Your task to perform on an android device: toggle wifi Image 0: 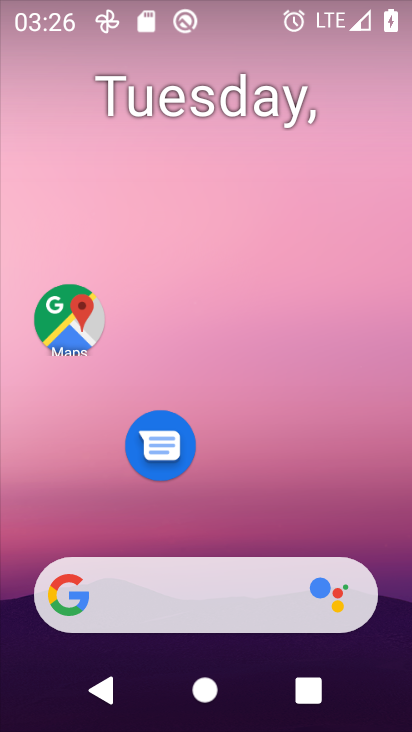
Step 0: drag from (264, 478) to (194, 24)
Your task to perform on an android device: toggle wifi Image 1: 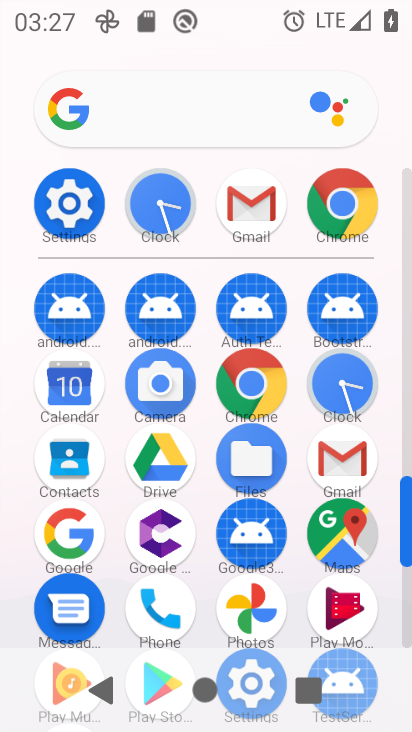
Step 1: click (61, 184)
Your task to perform on an android device: toggle wifi Image 2: 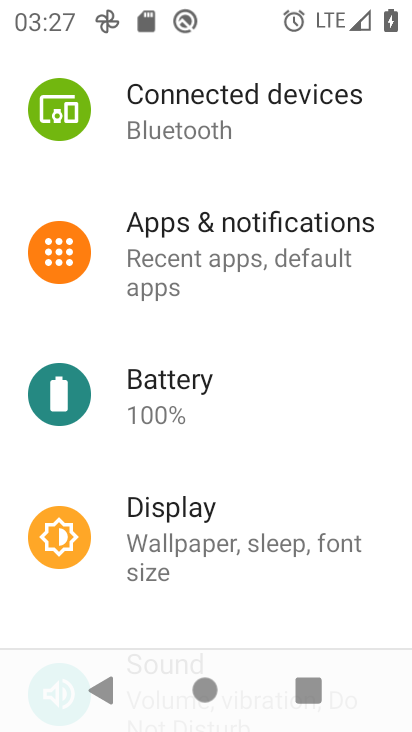
Step 2: drag from (223, 159) to (315, 696)
Your task to perform on an android device: toggle wifi Image 3: 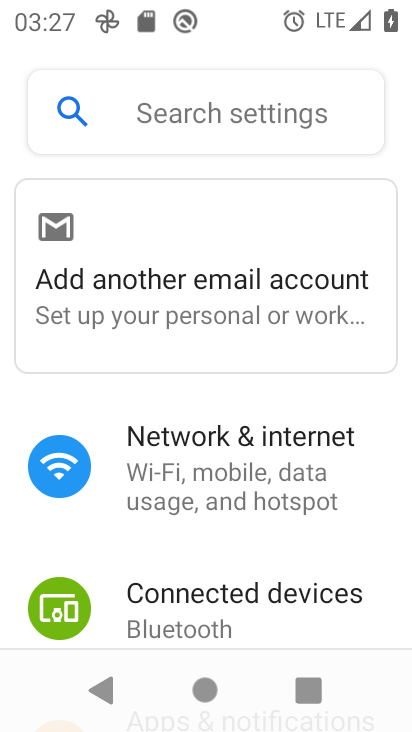
Step 3: click (193, 471)
Your task to perform on an android device: toggle wifi Image 4: 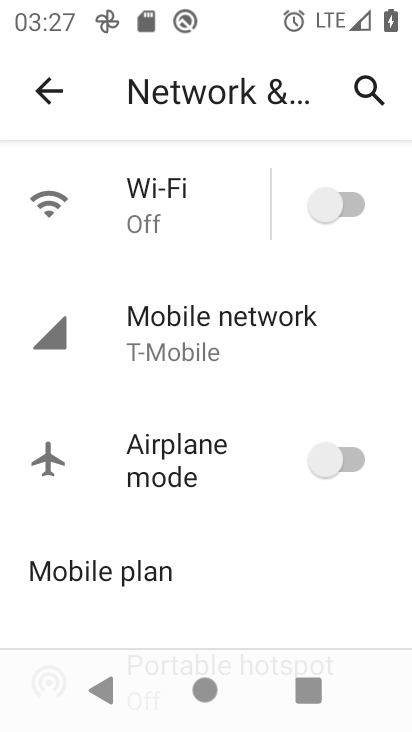
Step 4: click (316, 212)
Your task to perform on an android device: toggle wifi Image 5: 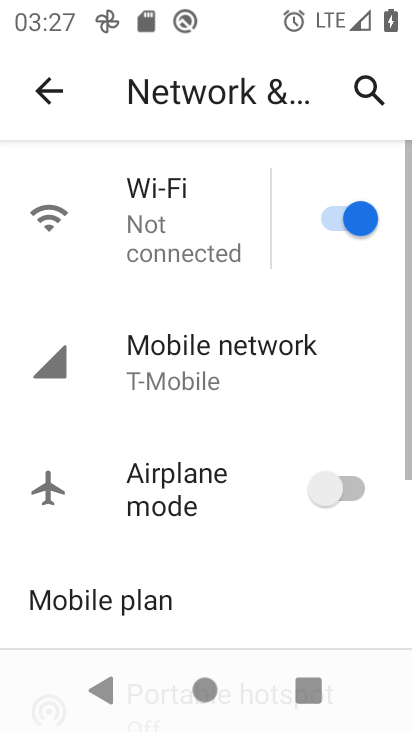
Step 5: task complete